Your task to perform on an android device: toggle data saver in the chrome app Image 0: 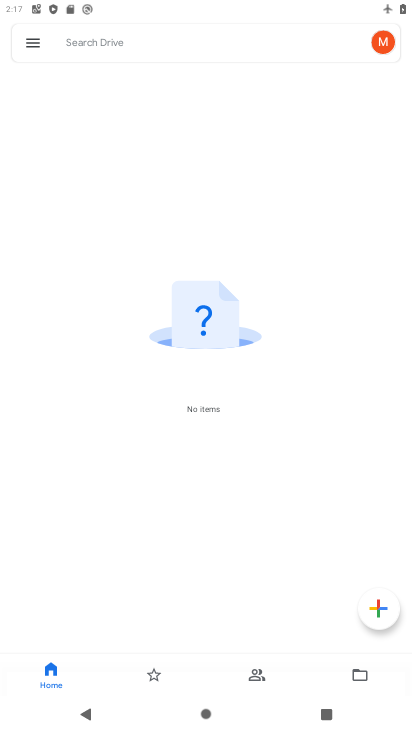
Step 0: press home button
Your task to perform on an android device: toggle data saver in the chrome app Image 1: 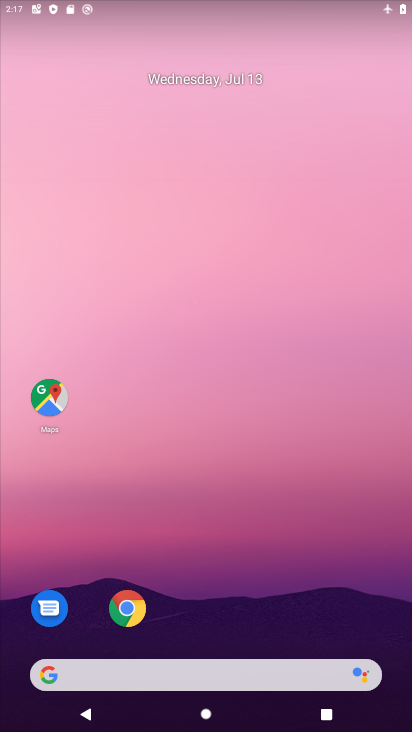
Step 1: click (127, 618)
Your task to perform on an android device: toggle data saver in the chrome app Image 2: 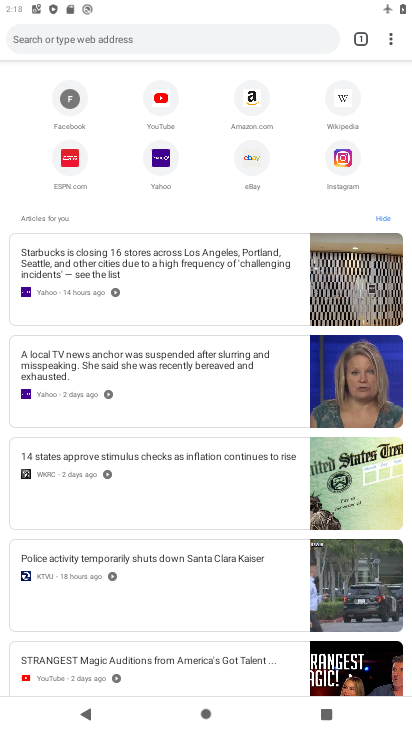
Step 2: click (397, 41)
Your task to perform on an android device: toggle data saver in the chrome app Image 3: 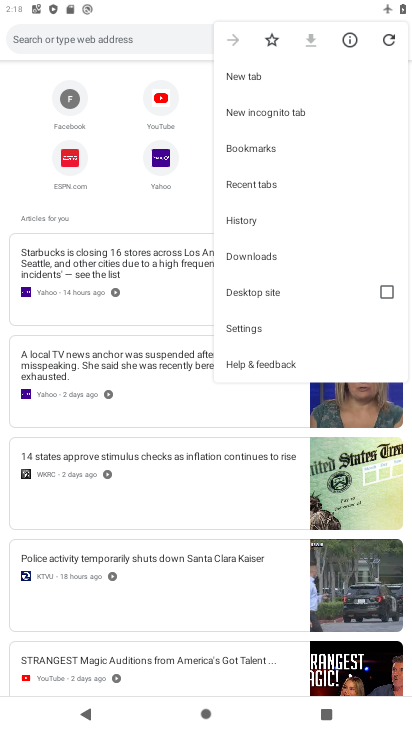
Step 3: click (392, 37)
Your task to perform on an android device: toggle data saver in the chrome app Image 4: 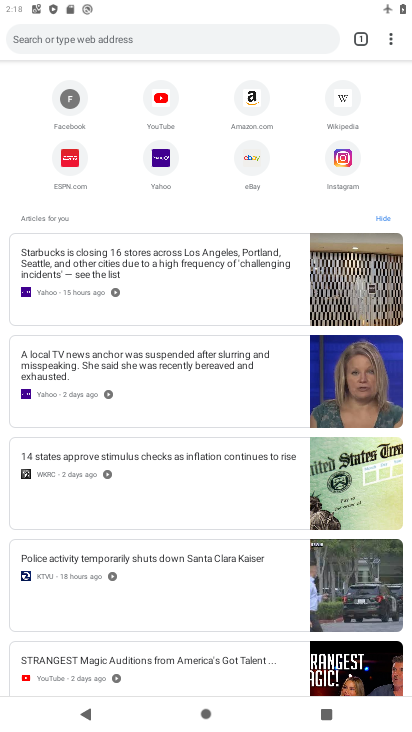
Step 4: click (231, 325)
Your task to perform on an android device: toggle data saver in the chrome app Image 5: 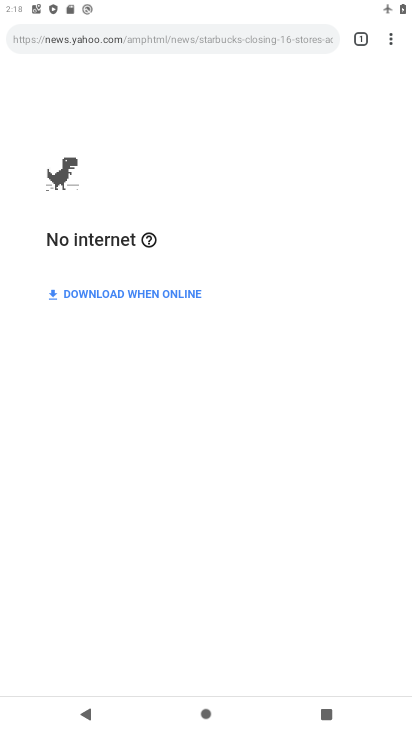
Step 5: task complete